Your task to perform on an android device: Clear all items from cart on newegg. Search for usb-c to usb-a on newegg, select the first entry, and add it to the cart. Image 0: 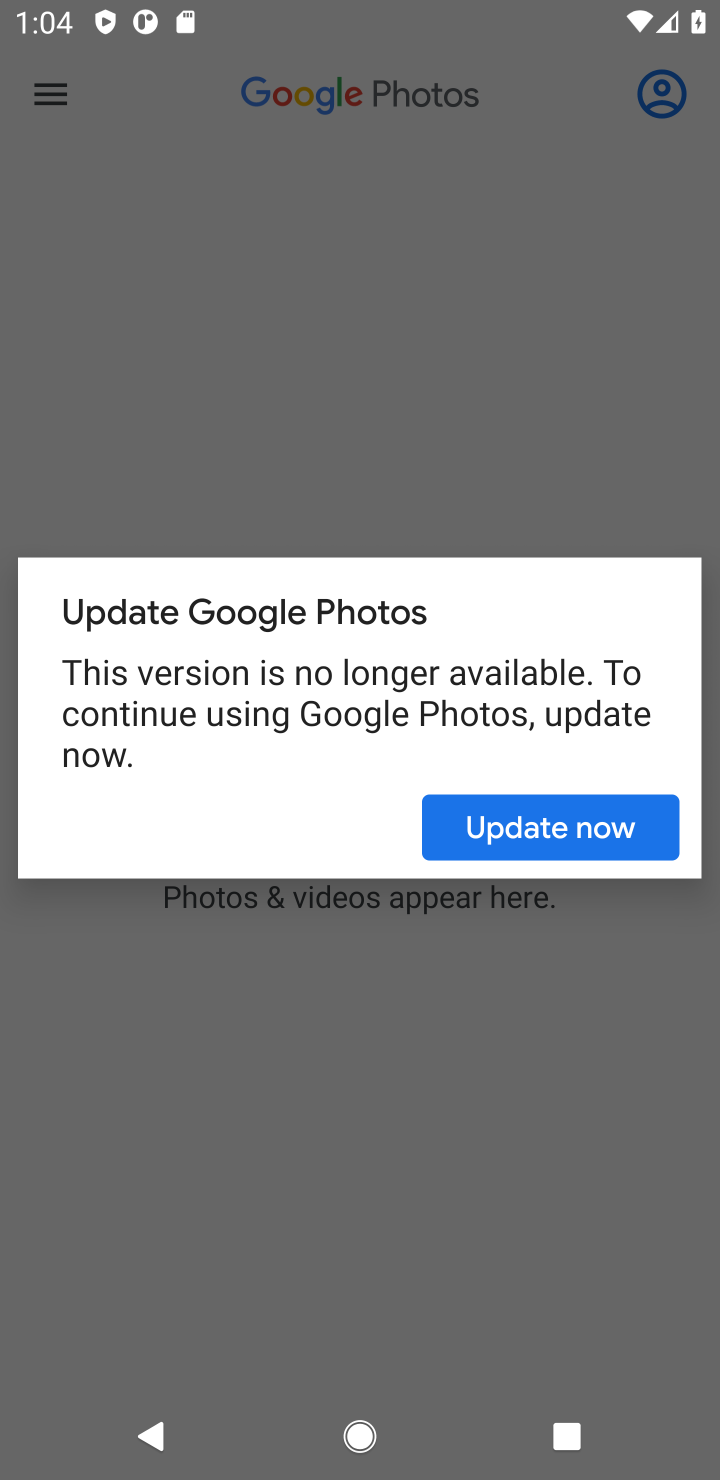
Step 0: press home button
Your task to perform on an android device: Clear all items from cart on newegg. Search for usb-c to usb-a on newegg, select the first entry, and add it to the cart. Image 1: 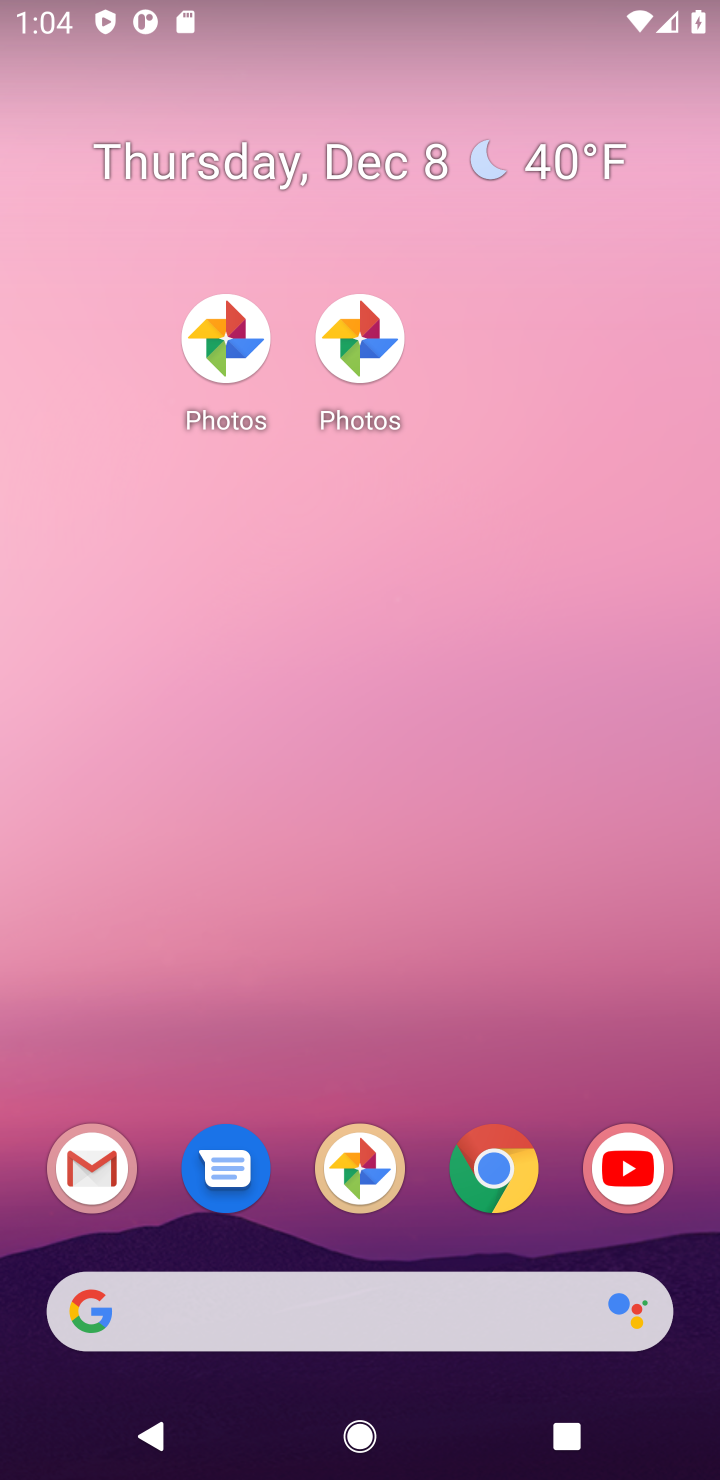
Step 1: drag from (431, 968) to (407, 112)
Your task to perform on an android device: Clear all items from cart on newegg. Search for usb-c to usb-a on newegg, select the first entry, and add it to the cart. Image 2: 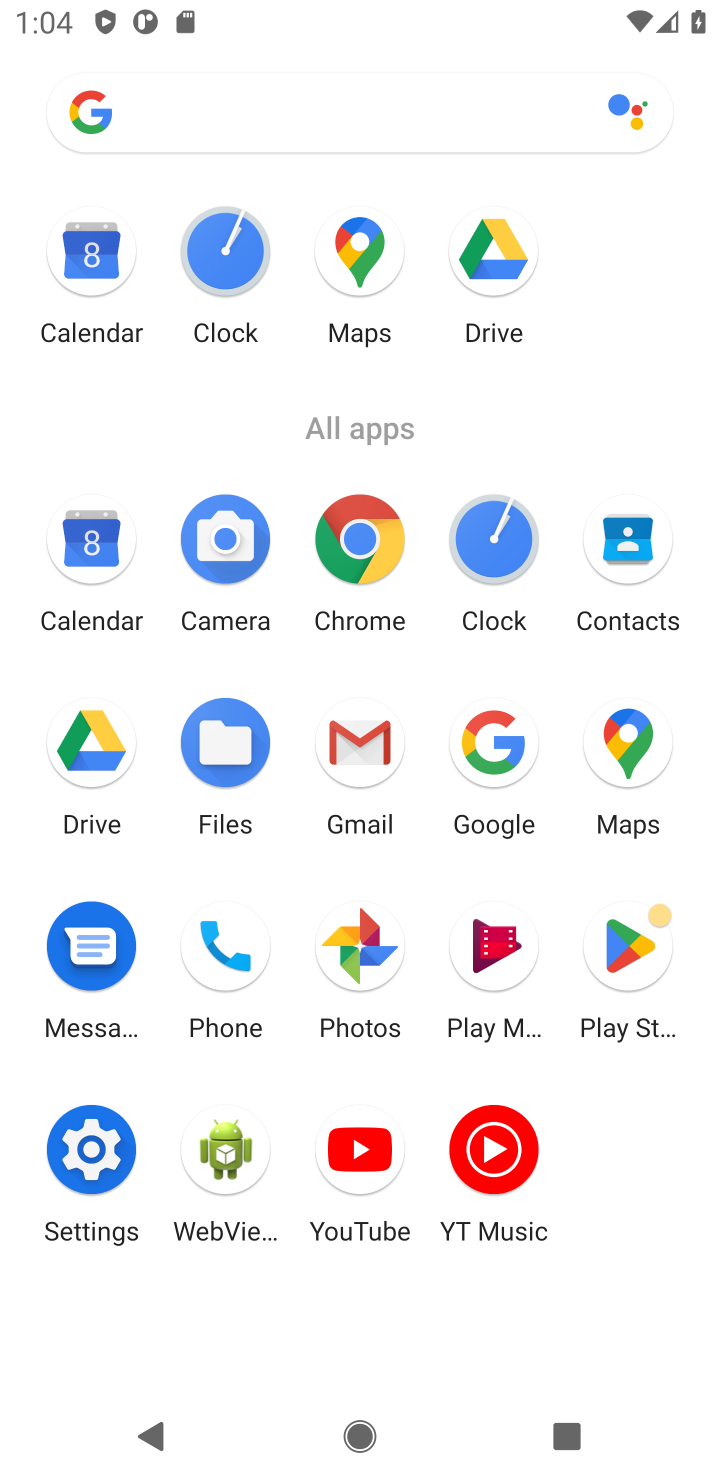
Step 2: click (514, 743)
Your task to perform on an android device: Clear all items from cart on newegg. Search for usb-c to usb-a on newegg, select the first entry, and add it to the cart. Image 3: 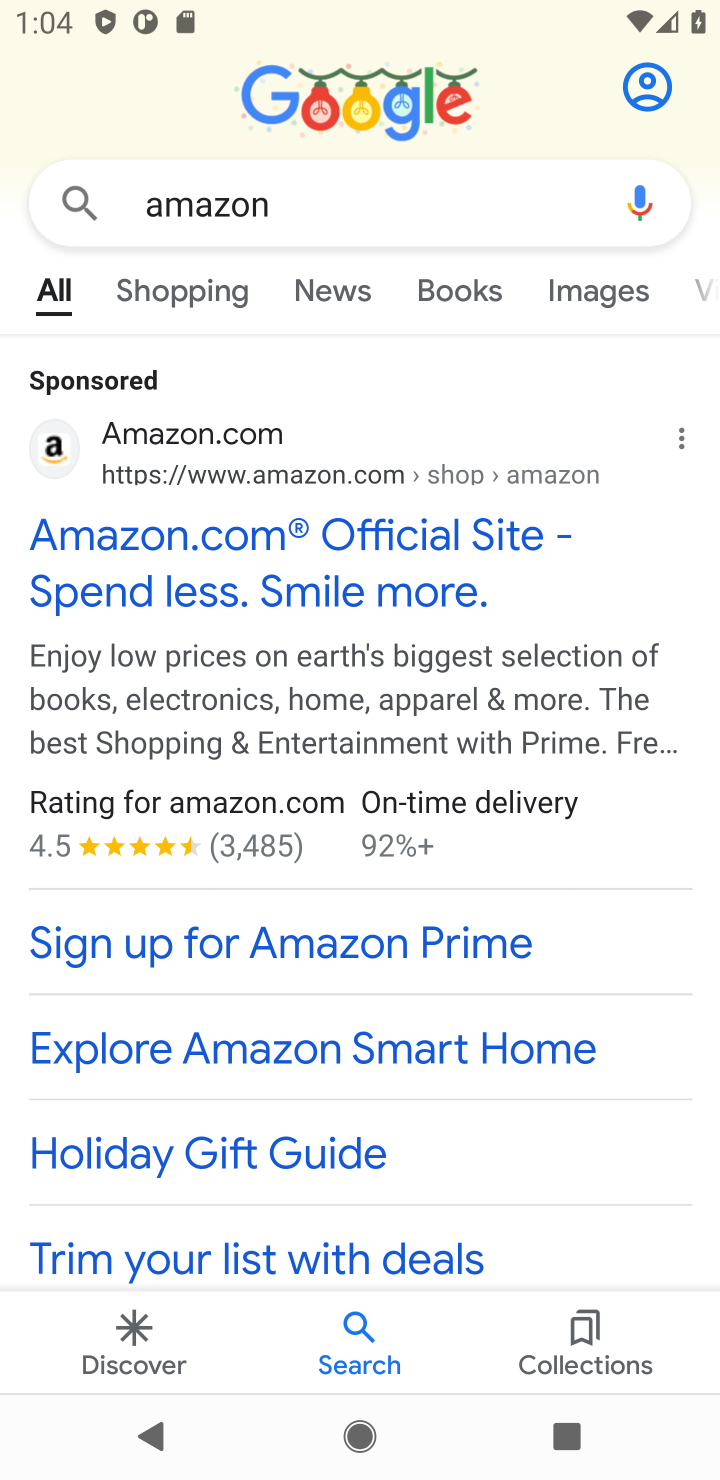
Step 3: click (233, 203)
Your task to perform on an android device: Clear all items from cart on newegg. Search for usb-c to usb-a on newegg, select the first entry, and add it to the cart. Image 4: 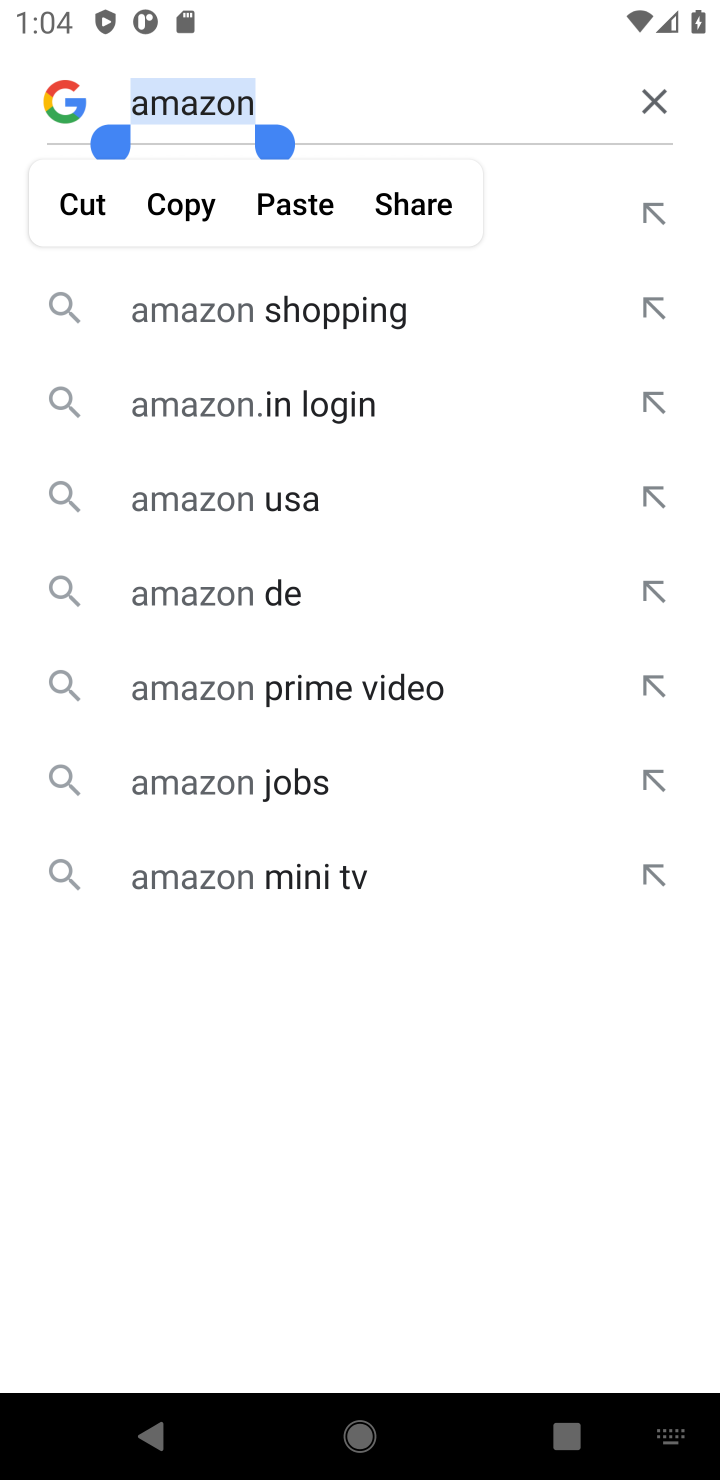
Step 4: click (660, 107)
Your task to perform on an android device: Clear all items from cart on newegg. Search for usb-c to usb-a on newegg, select the first entry, and add it to the cart. Image 5: 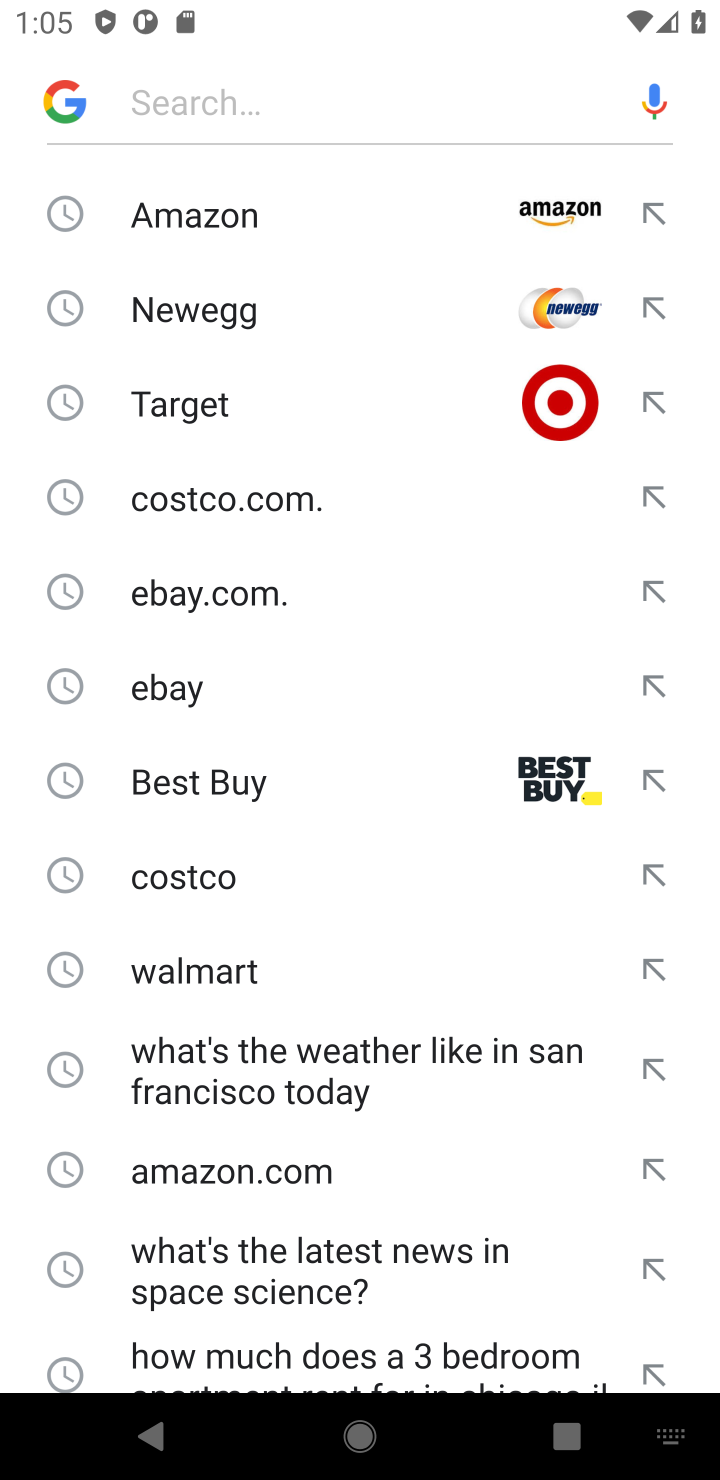
Step 5: click (198, 313)
Your task to perform on an android device: Clear all items from cart on newegg. Search for usb-c to usb-a on newegg, select the first entry, and add it to the cart. Image 6: 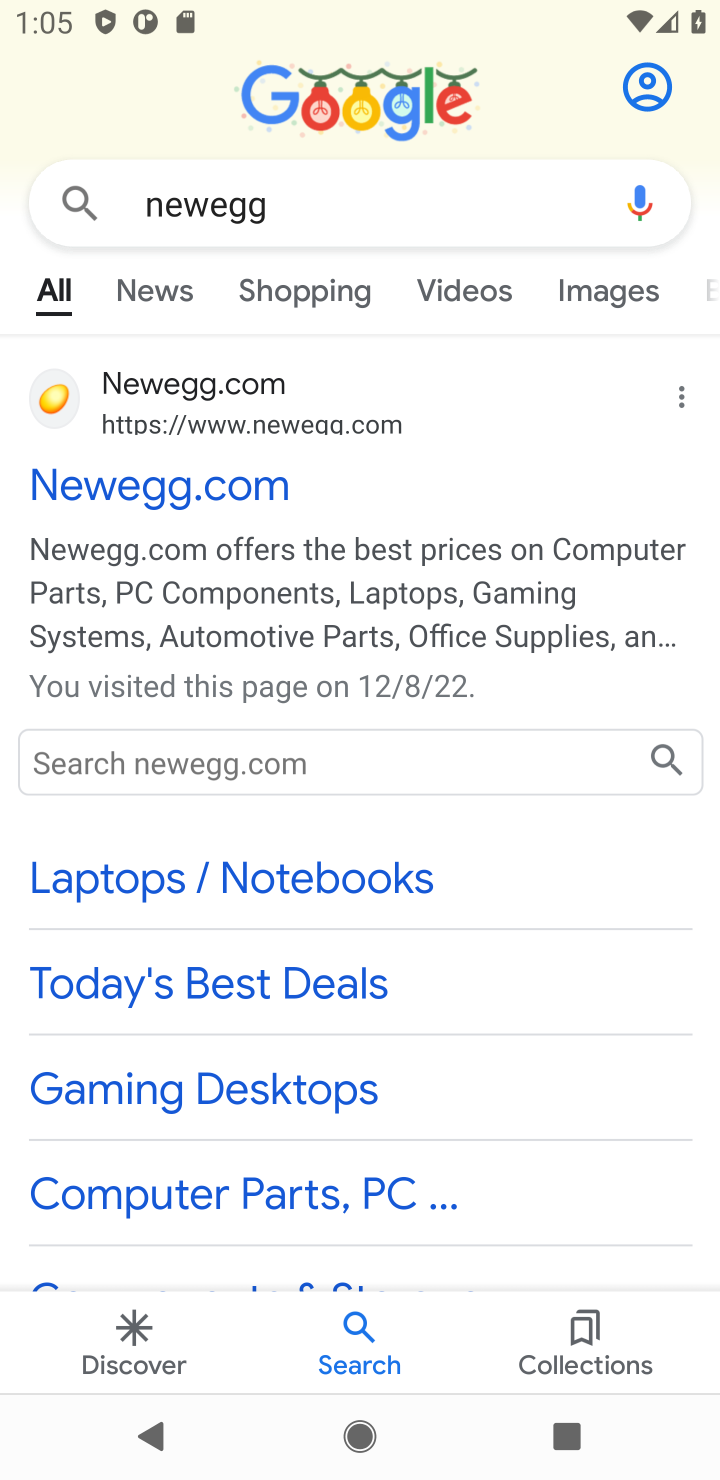
Step 6: click (137, 480)
Your task to perform on an android device: Clear all items from cart on newegg. Search for usb-c to usb-a on newegg, select the first entry, and add it to the cart. Image 7: 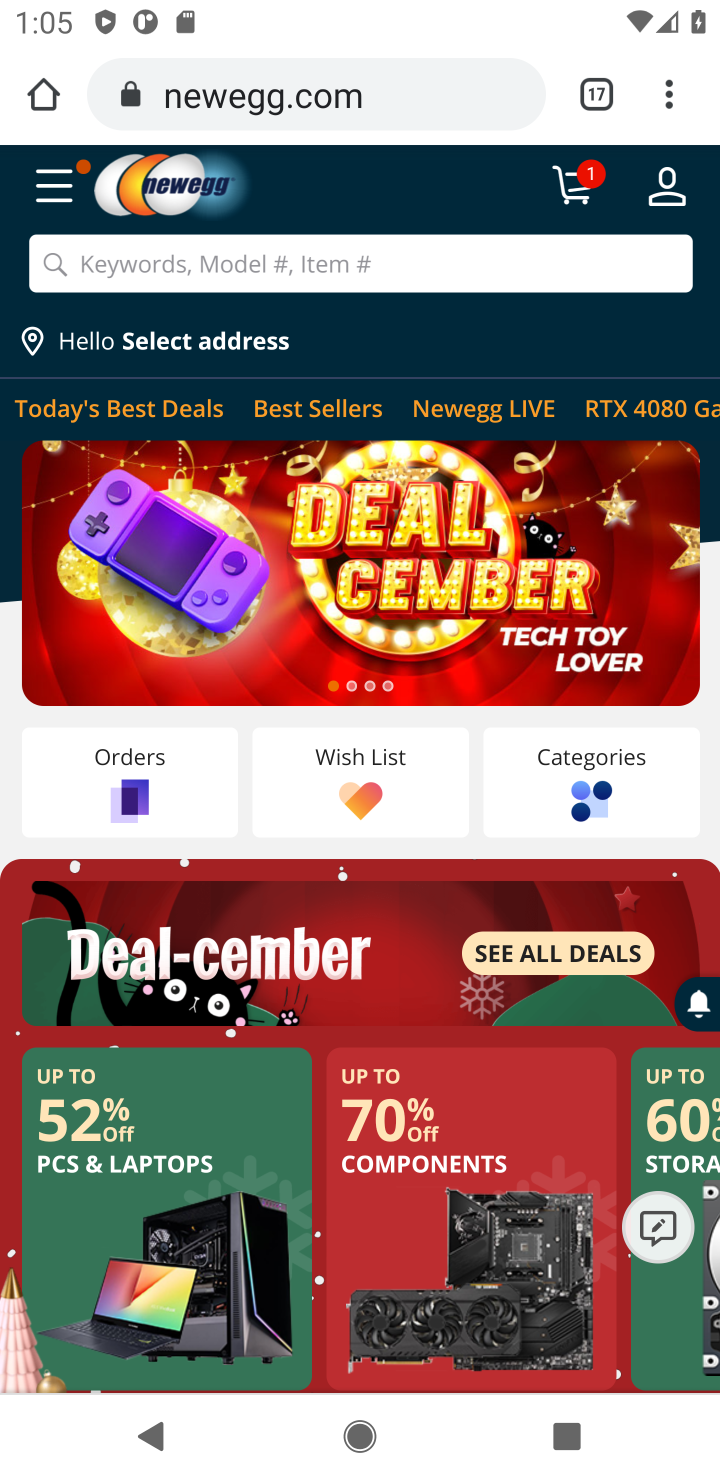
Step 7: click (159, 265)
Your task to perform on an android device: Clear all items from cart on newegg. Search for usb-c to usb-a on newegg, select the first entry, and add it to the cart. Image 8: 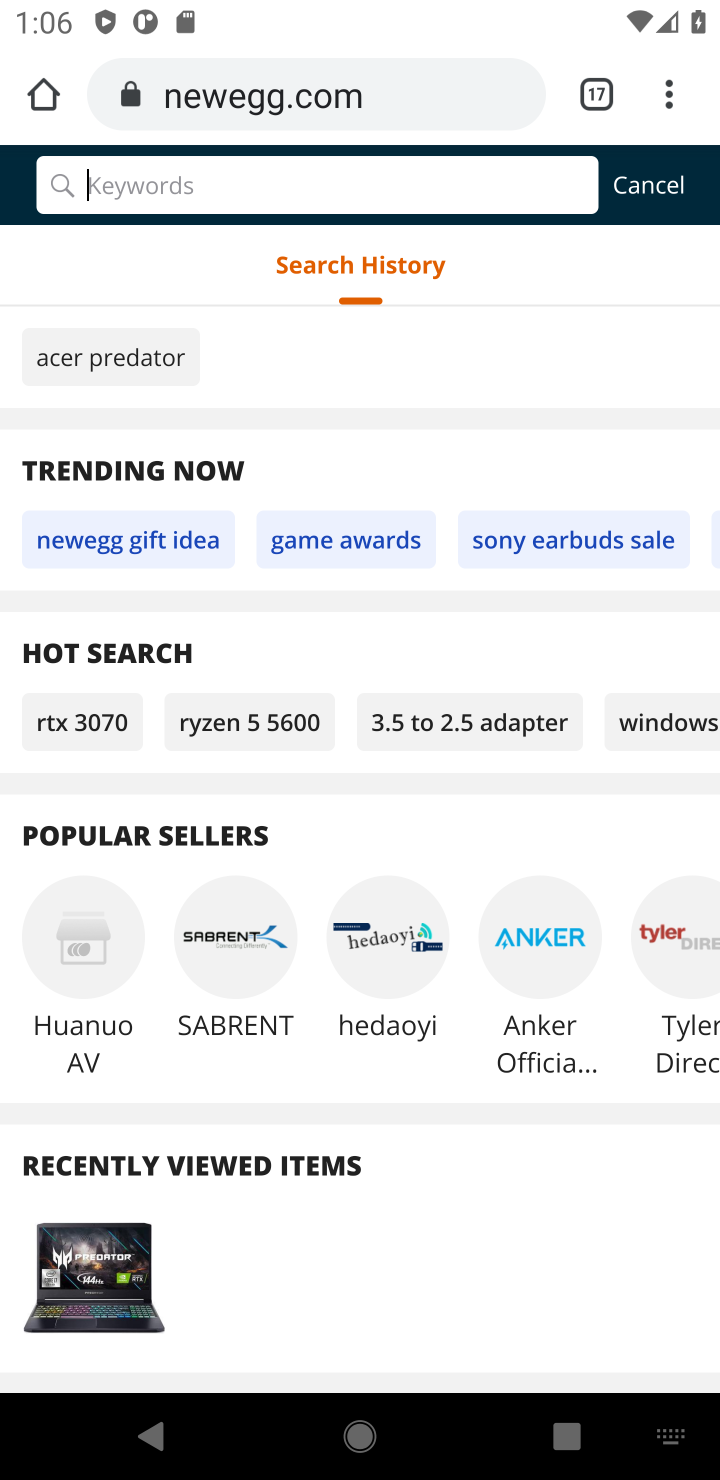
Step 8: type "usb-c to usb-a"
Your task to perform on an android device: Clear all items from cart on newegg. Search for usb-c to usb-a on newegg, select the first entry, and add it to the cart. Image 9: 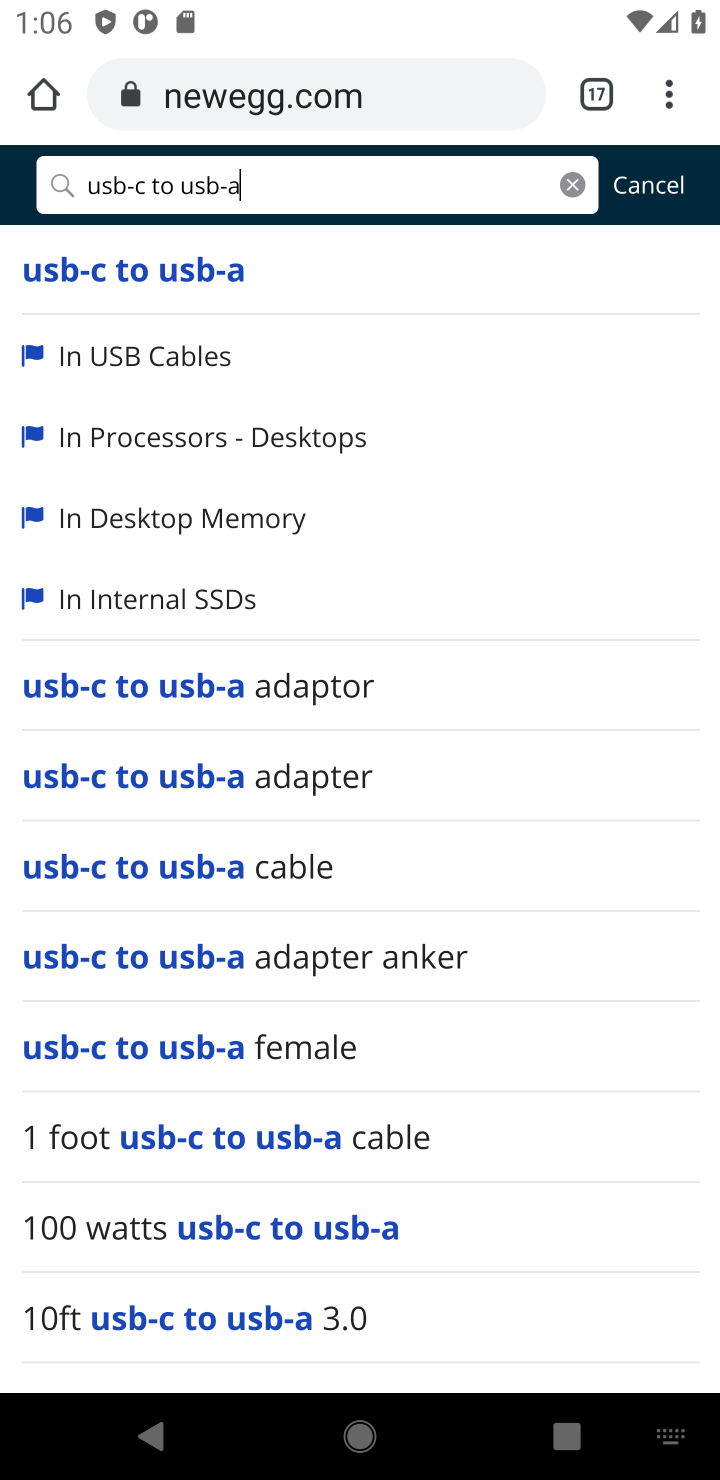
Step 9: click (211, 276)
Your task to perform on an android device: Clear all items from cart on newegg. Search for usb-c to usb-a on newegg, select the first entry, and add it to the cart. Image 10: 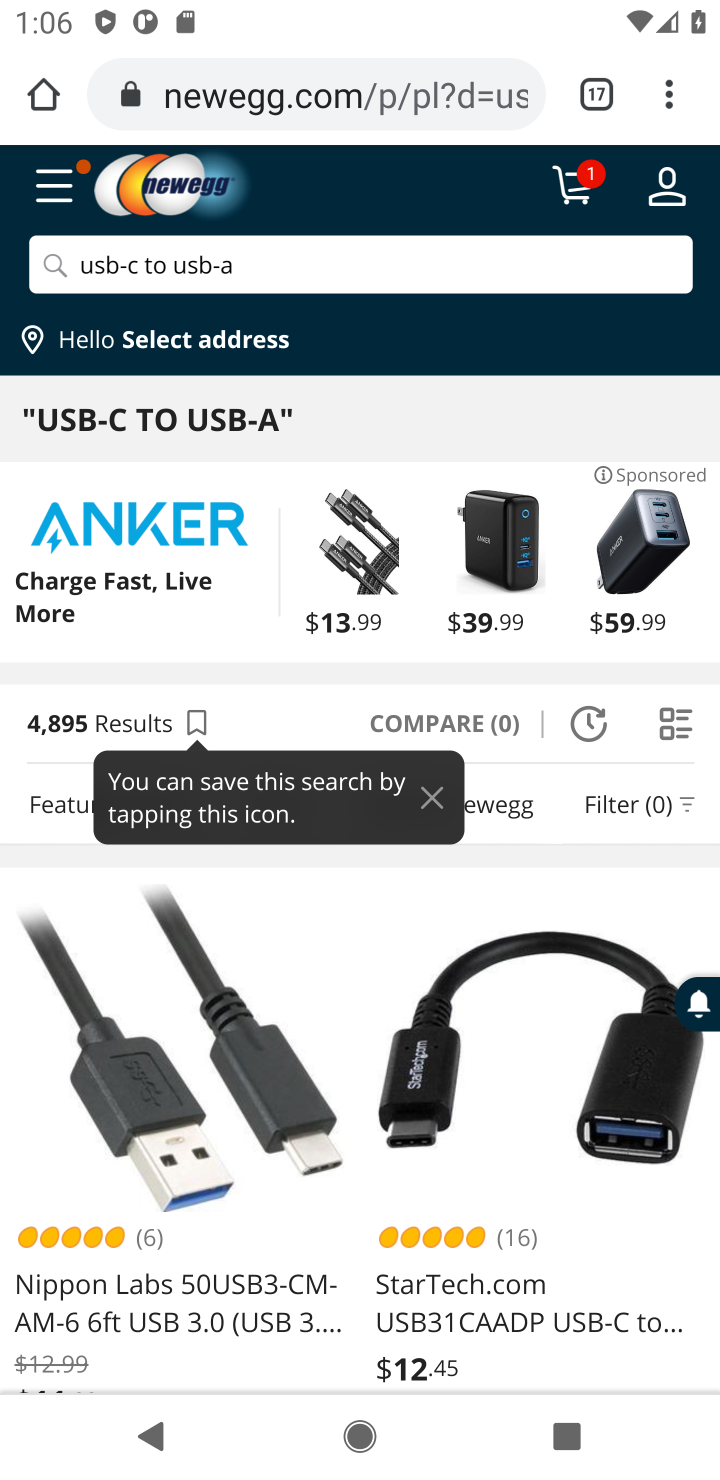
Step 10: drag from (348, 1361) to (350, 848)
Your task to perform on an android device: Clear all items from cart on newegg. Search for usb-c to usb-a on newegg, select the first entry, and add it to the cart. Image 11: 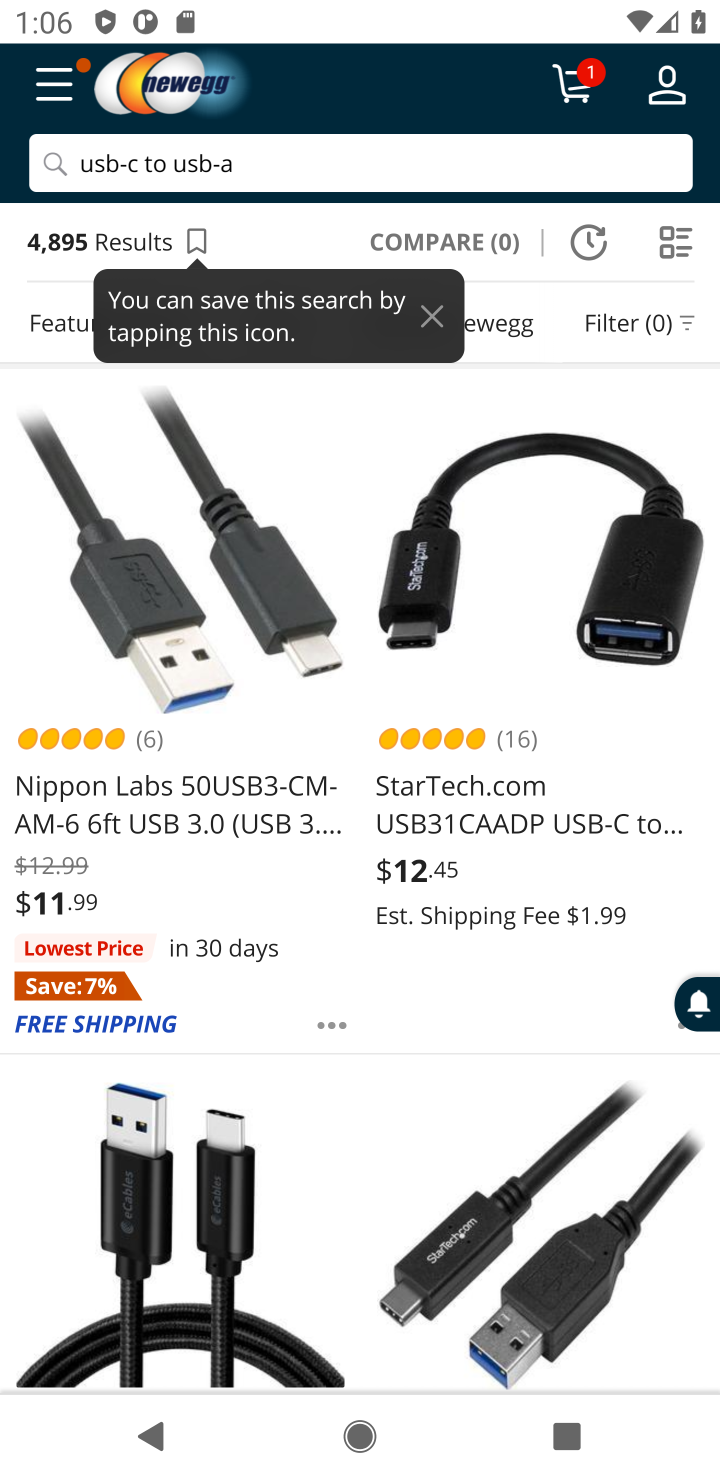
Step 11: drag from (355, 977) to (363, 1149)
Your task to perform on an android device: Clear all items from cart on newegg. Search for usb-c to usb-a on newegg, select the first entry, and add it to the cart. Image 12: 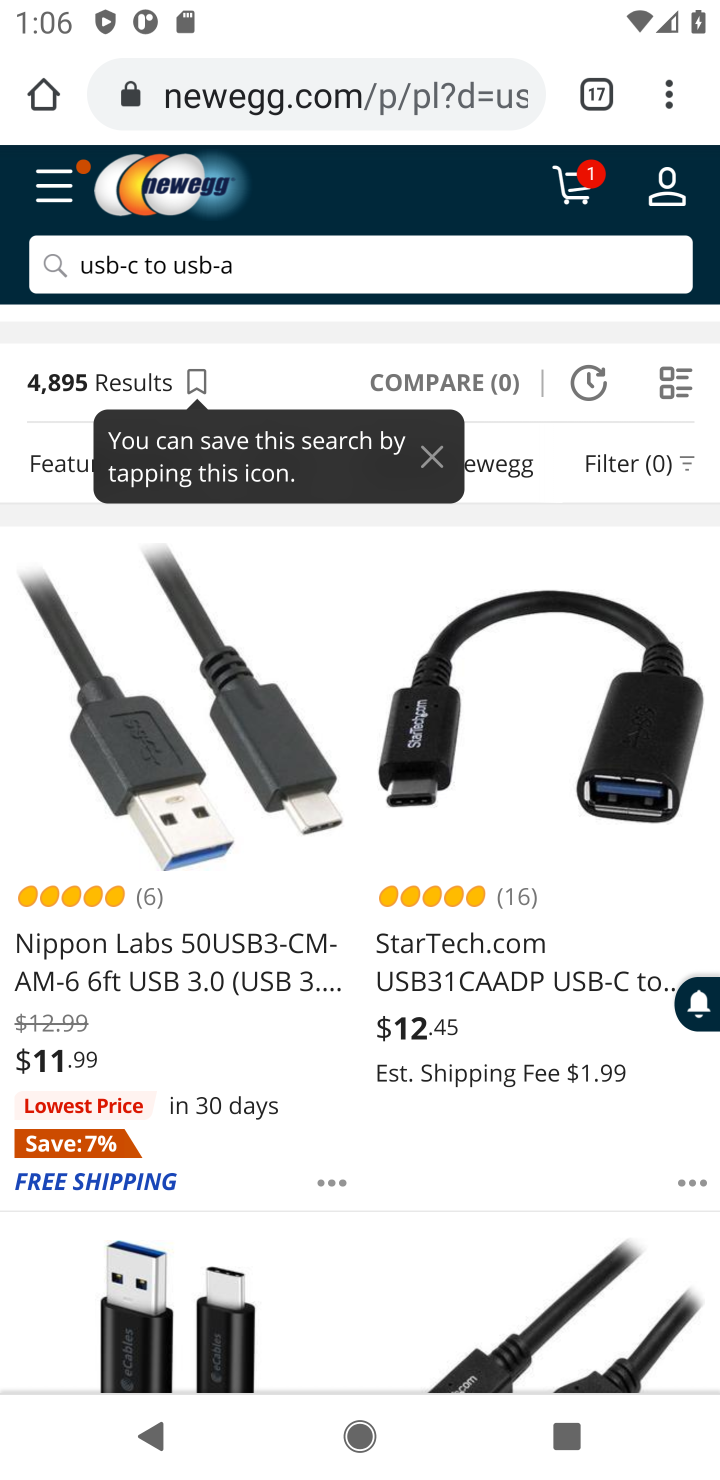
Step 12: click (116, 943)
Your task to perform on an android device: Clear all items from cart on newegg. Search for usb-c to usb-a on newegg, select the first entry, and add it to the cart. Image 13: 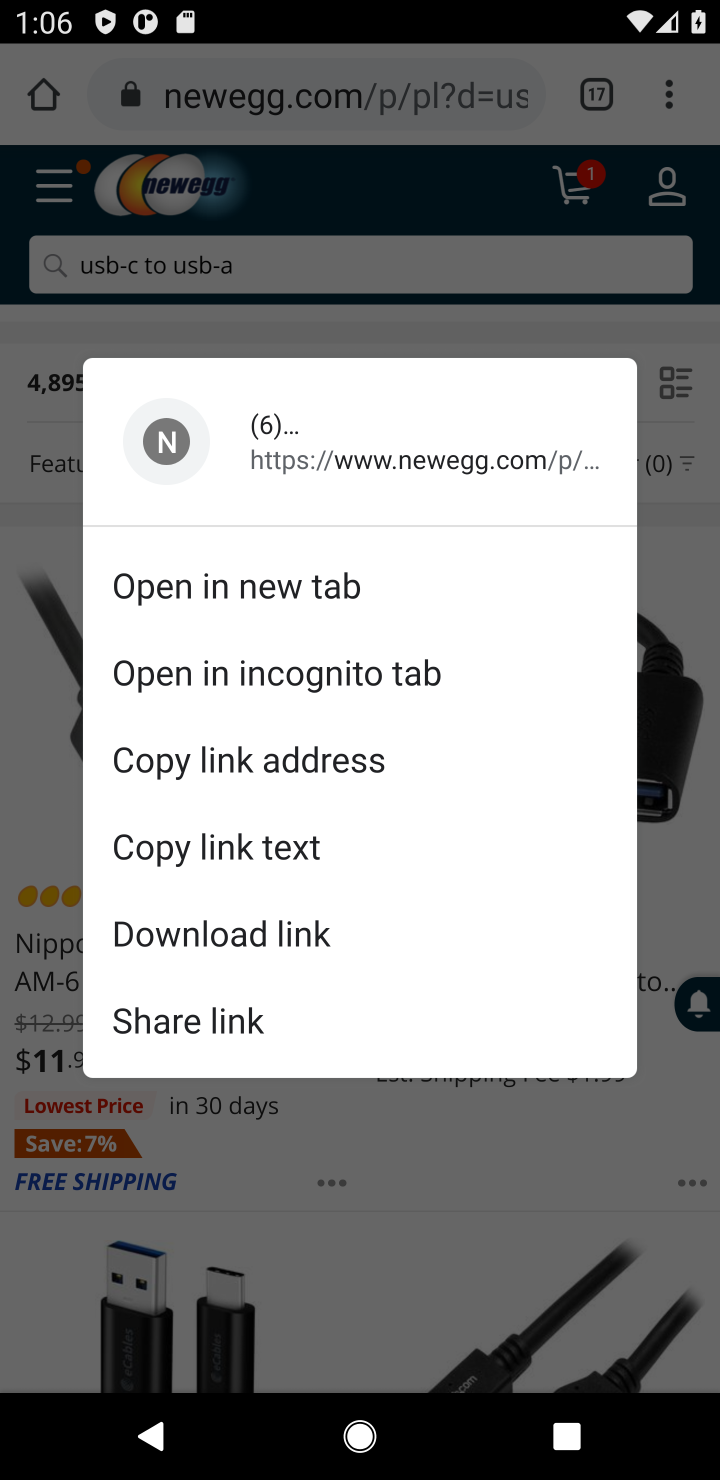
Step 13: click (18, 784)
Your task to perform on an android device: Clear all items from cart on newegg. Search for usb-c to usb-a on newegg, select the first entry, and add it to the cart. Image 14: 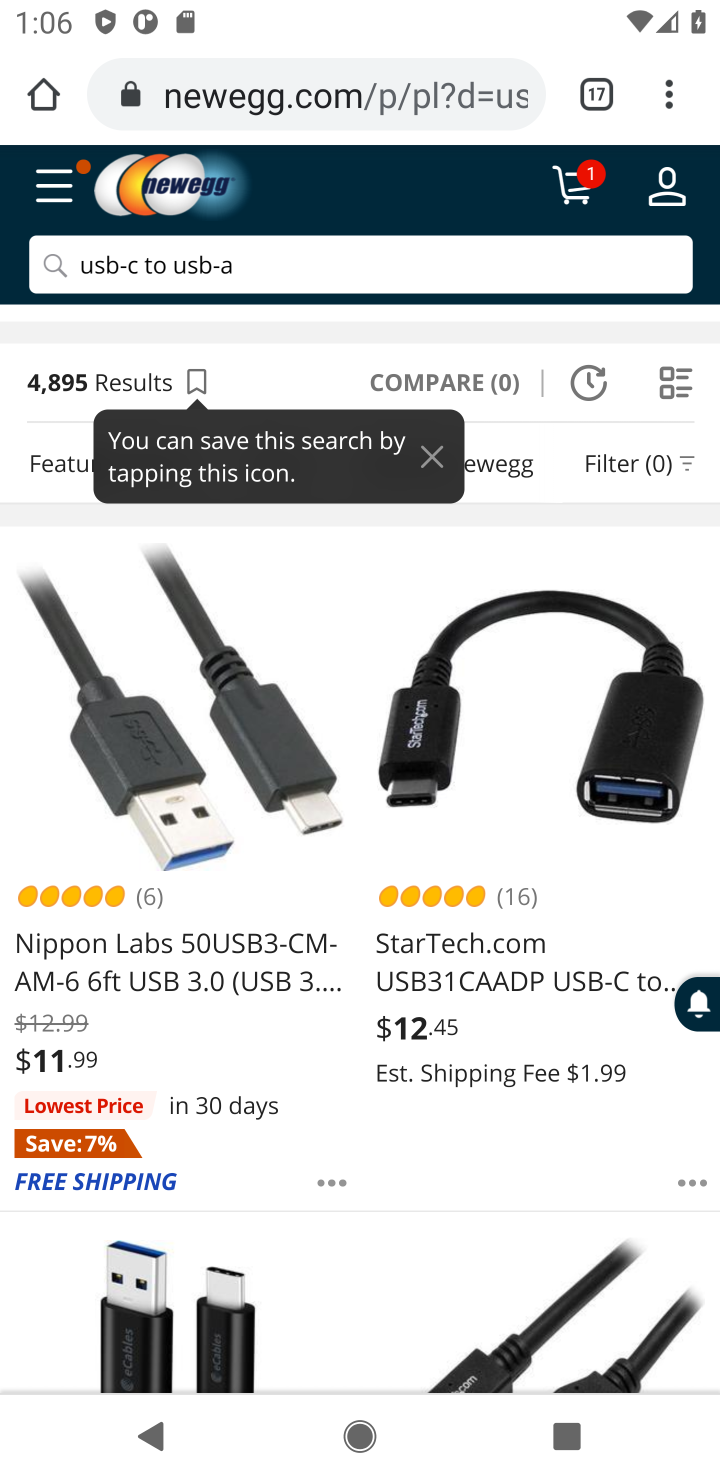
Step 14: click (177, 970)
Your task to perform on an android device: Clear all items from cart on newegg. Search for usb-c to usb-a on newegg, select the first entry, and add it to the cart. Image 15: 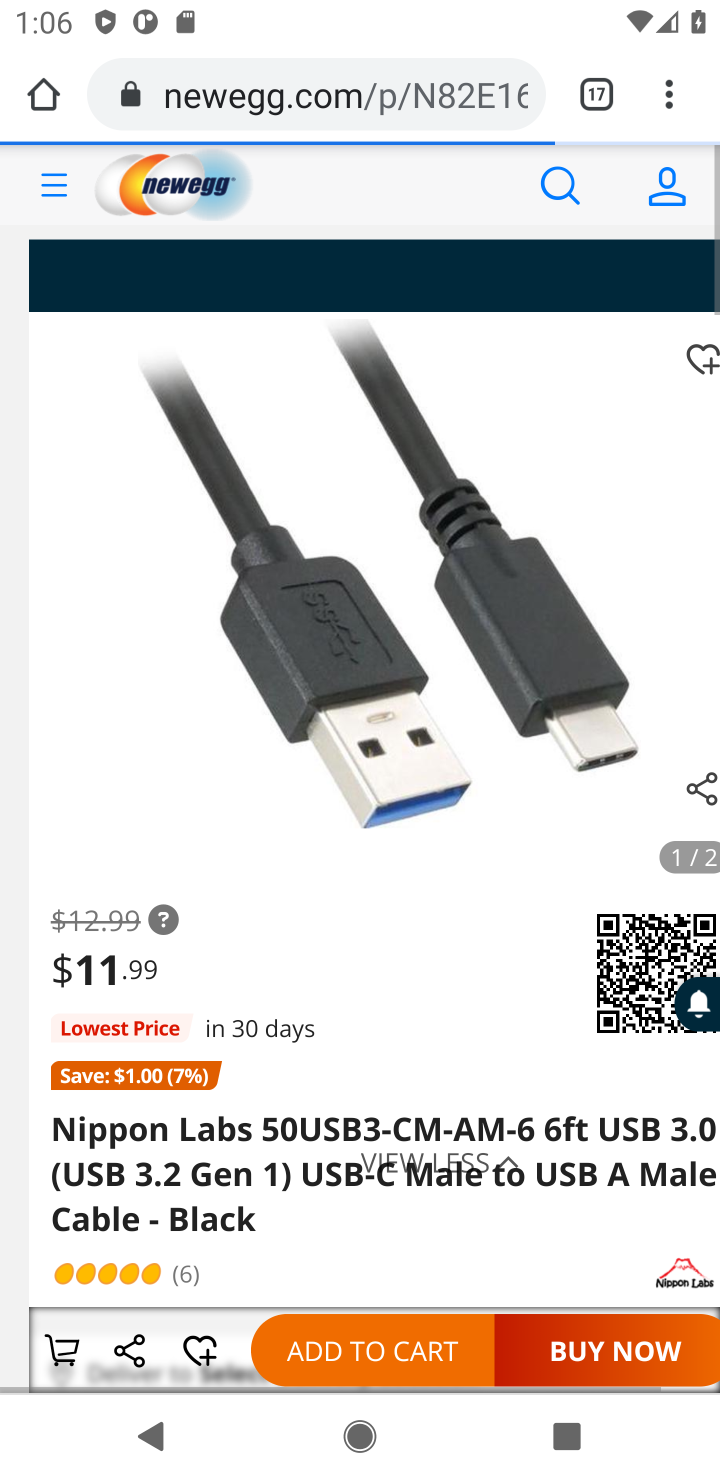
Step 15: click (46, 978)
Your task to perform on an android device: Clear all items from cart on newegg. Search for usb-c to usb-a on newegg, select the first entry, and add it to the cart. Image 16: 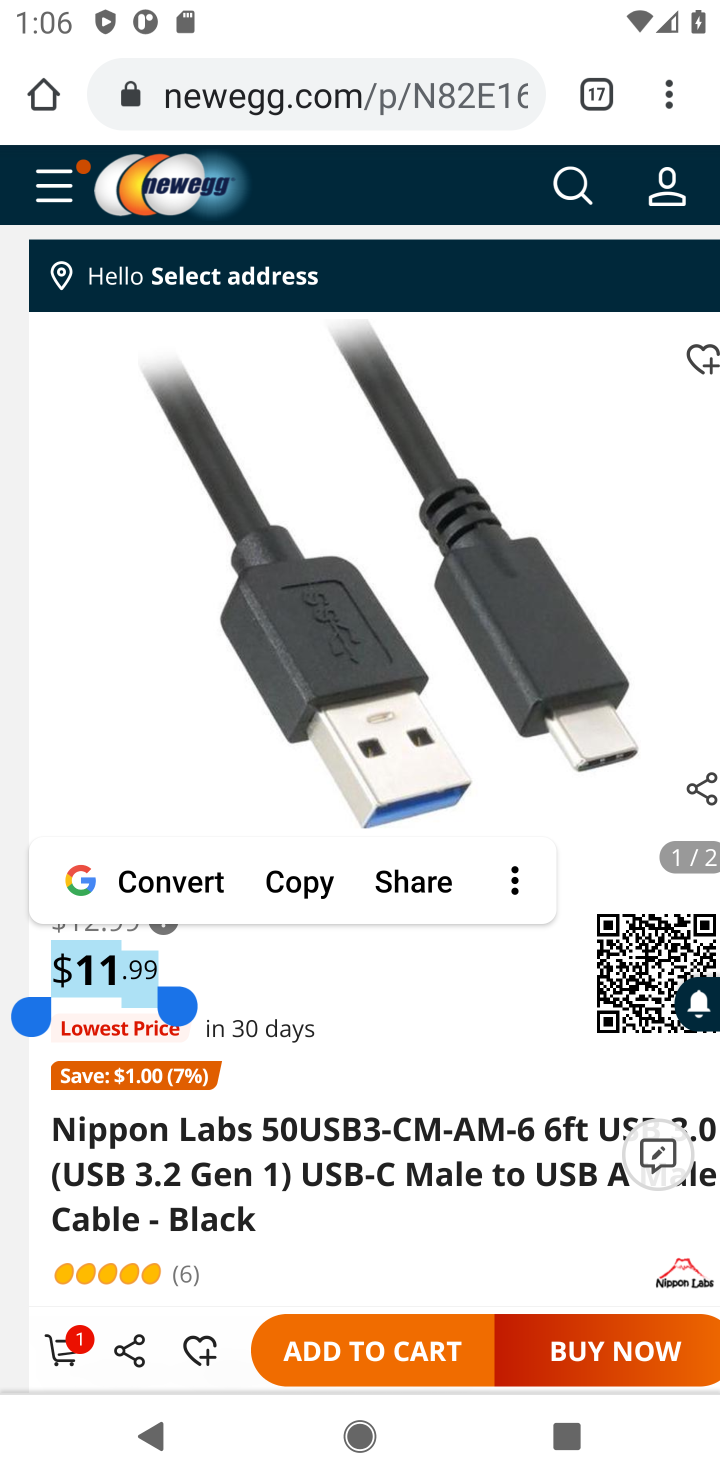
Step 16: click (46, 1354)
Your task to perform on an android device: Clear all items from cart on newegg. Search for usb-c to usb-a on newegg, select the first entry, and add it to the cart. Image 17: 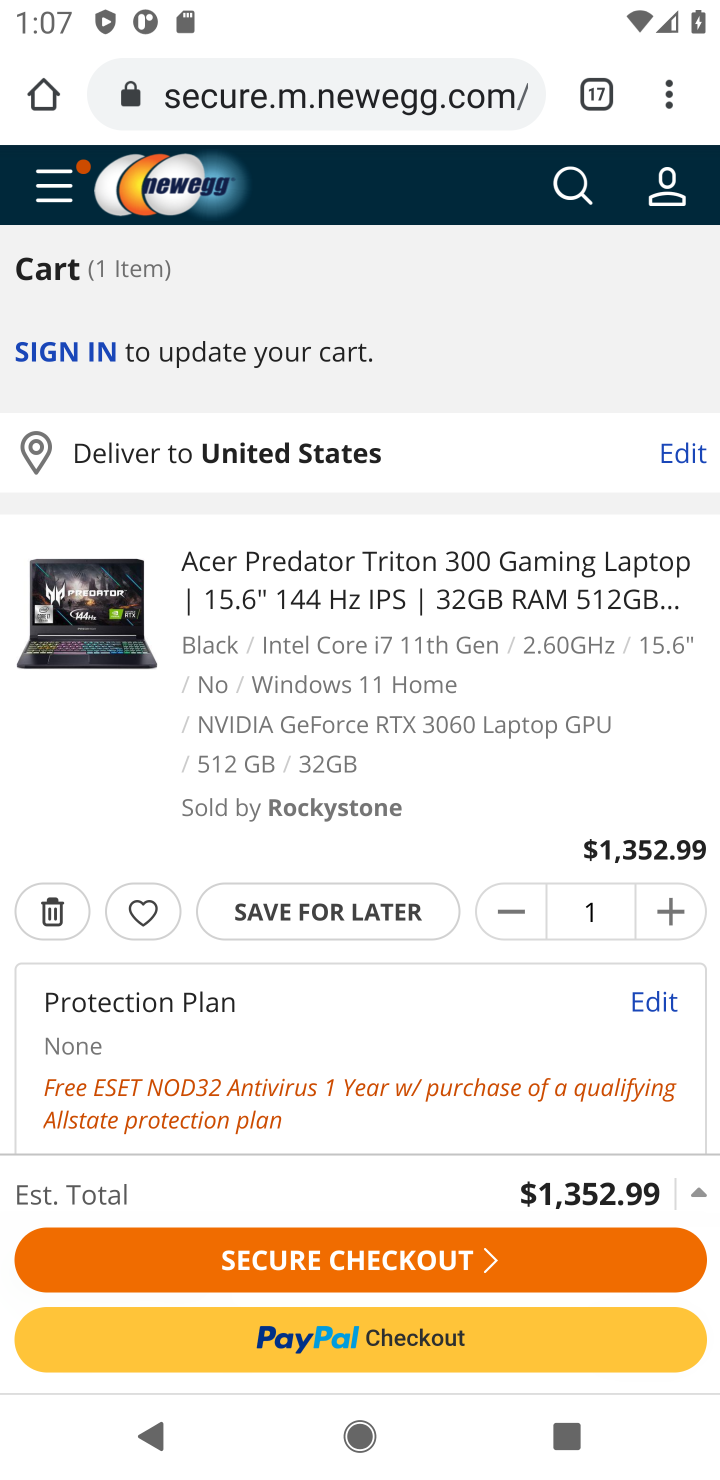
Step 17: drag from (401, 1137) to (360, 564)
Your task to perform on an android device: Clear all items from cart on newegg. Search for usb-c to usb-a on newegg, select the first entry, and add it to the cart. Image 18: 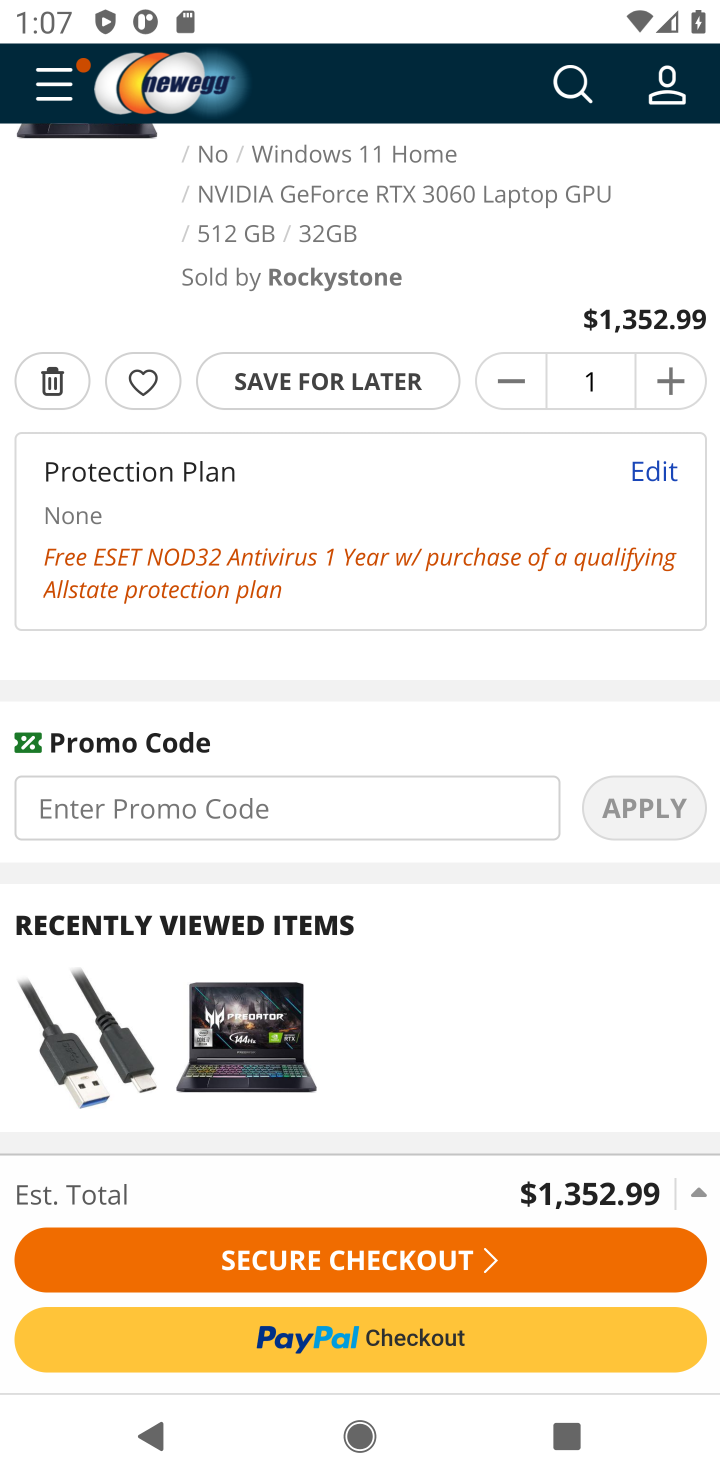
Step 18: click (39, 389)
Your task to perform on an android device: Clear all items from cart on newegg. Search for usb-c to usb-a on newegg, select the first entry, and add it to the cart. Image 19: 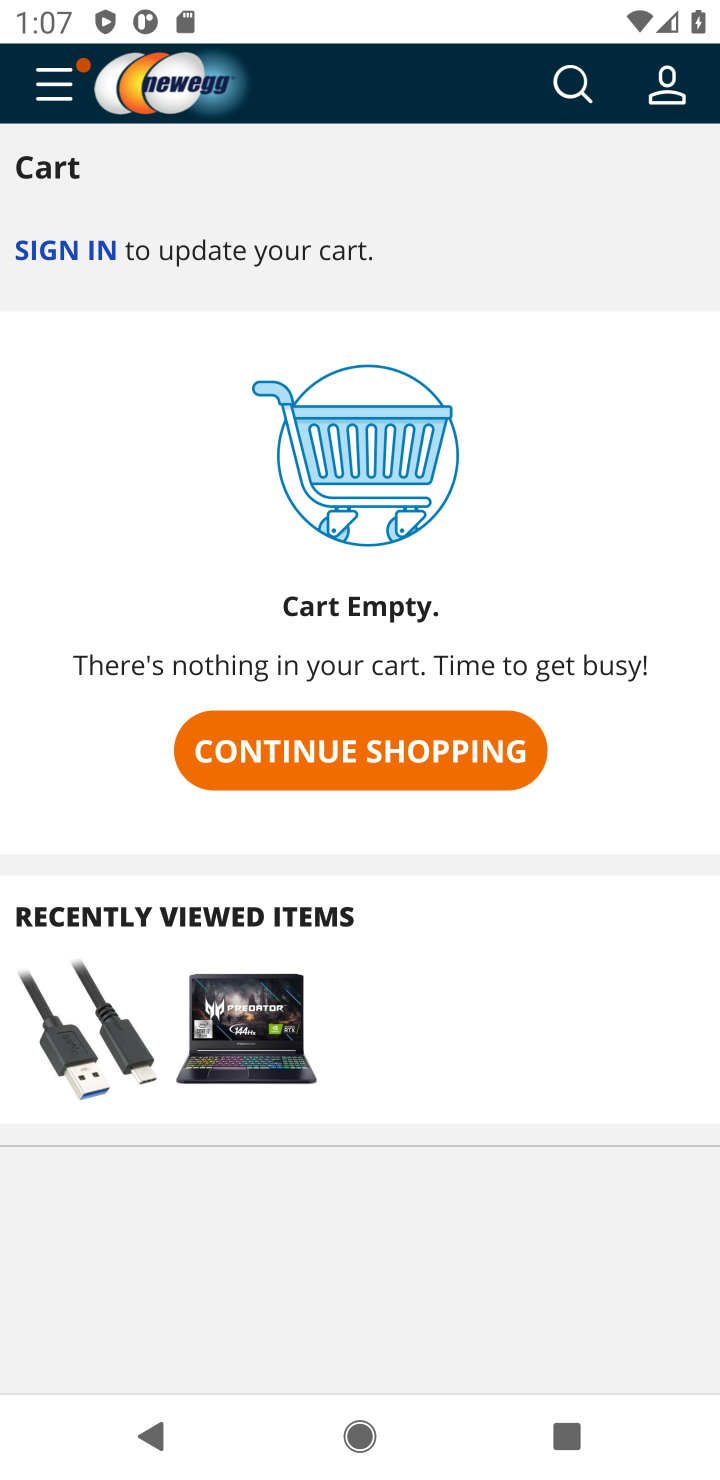
Step 19: click (569, 87)
Your task to perform on an android device: Clear all items from cart on newegg. Search for usb-c to usb-a on newegg, select the first entry, and add it to the cart. Image 20: 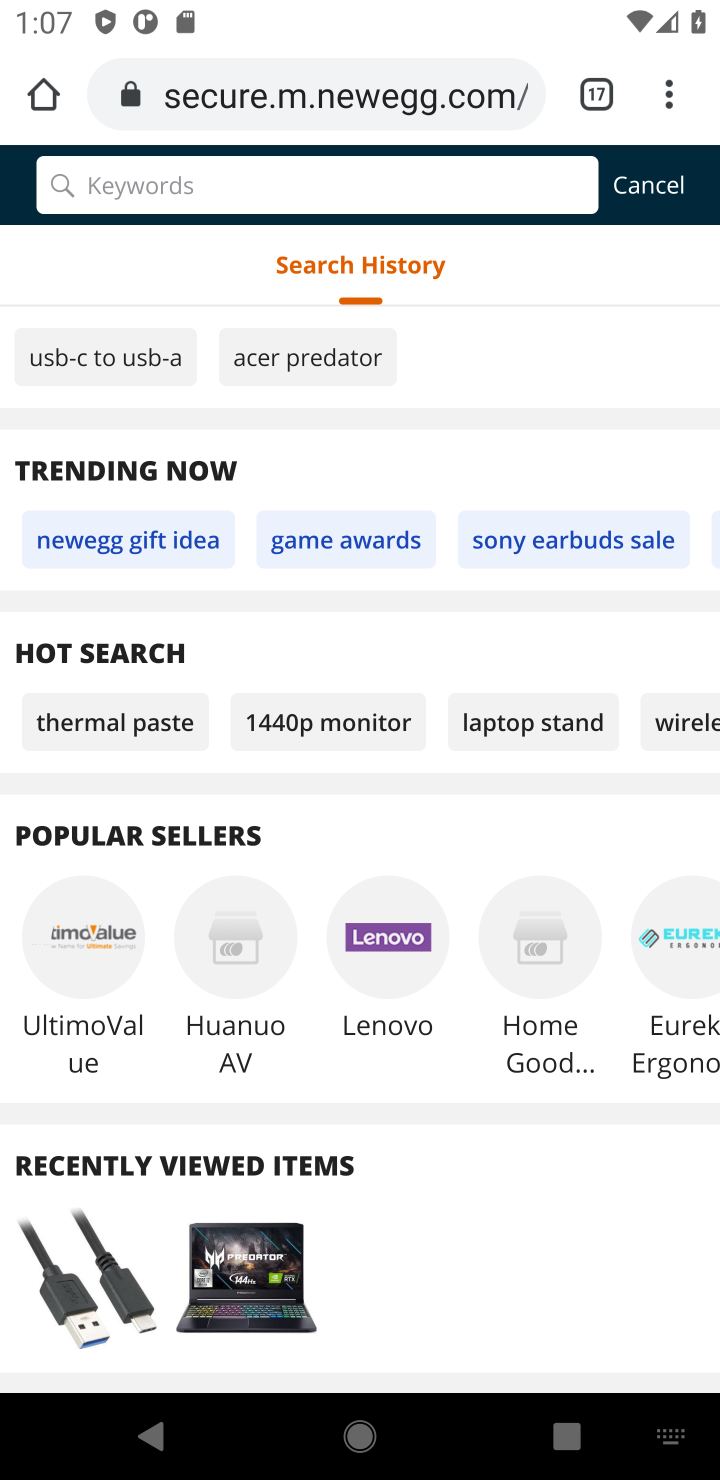
Step 20: type "usb-c to usb-a"
Your task to perform on an android device: Clear all items from cart on newegg. Search for usb-c to usb-a on newegg, select the first entry, and add it to the cart. Image 21: 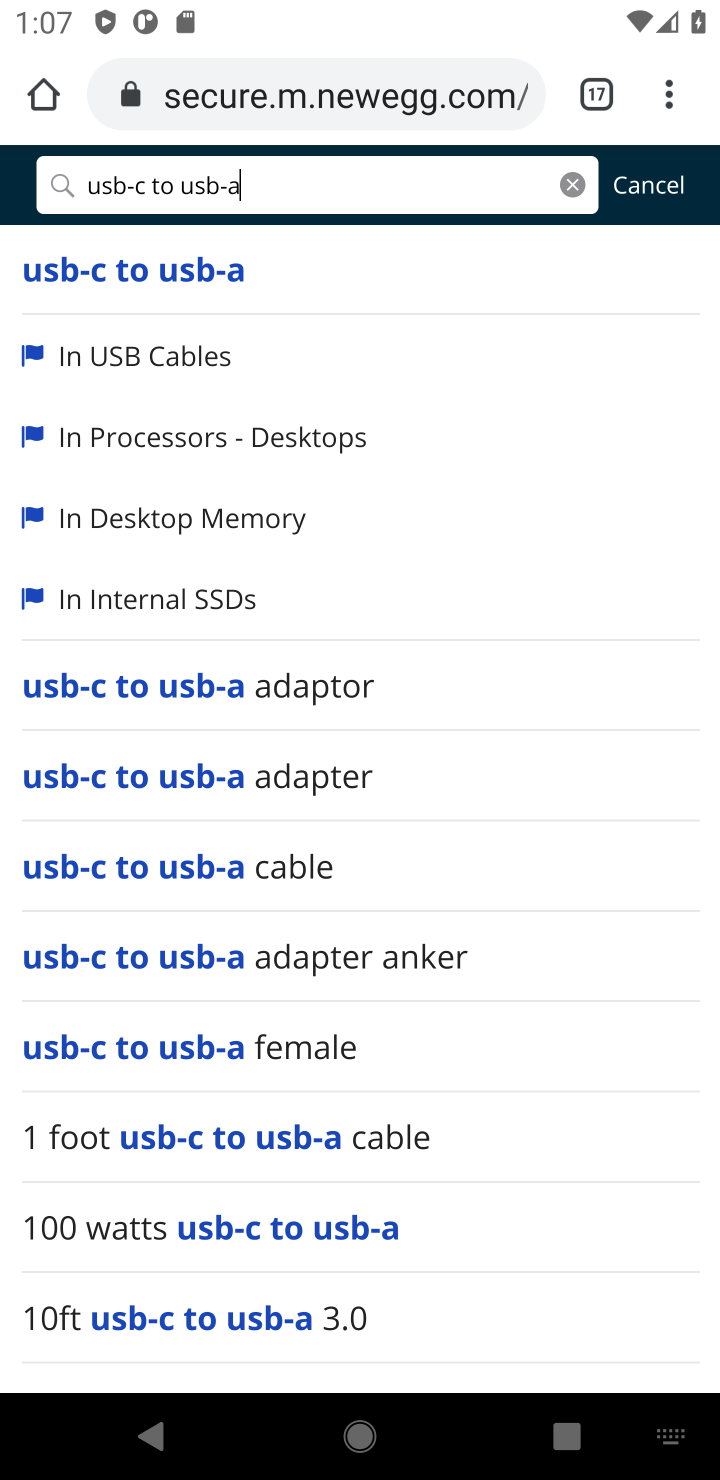
Step 21: click (103, 289)
Your task to perform on an android device: Clear all items from cart on newegg. Search for usb-c to usb-a on newegg, select the first entry, and add it to the cart. Image 22: 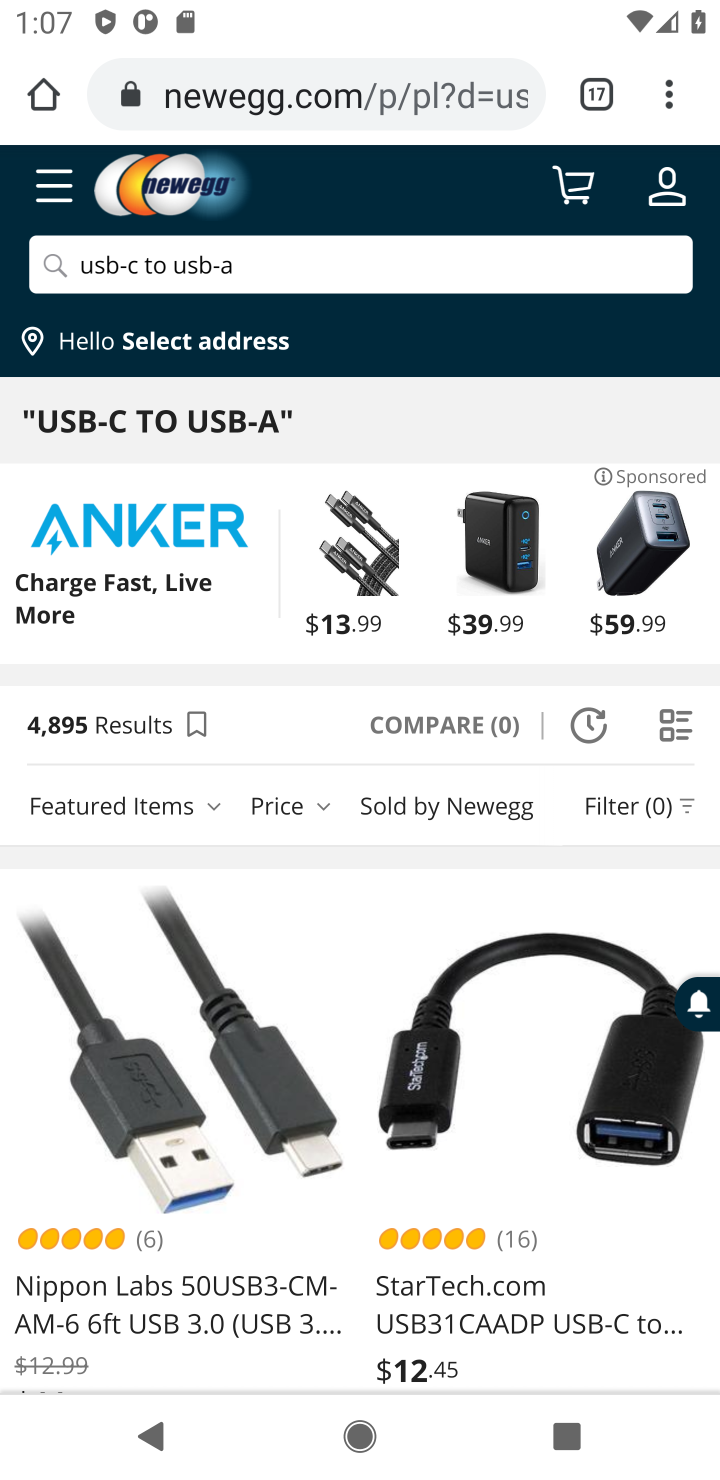
Step 22: drag from (381, 1092) to (381, 727)
Your task to perform on an android device: Clear all items from cart on newegg. Search for usb-c to usb-a on newegg, select the first entry, and add it to the cart. Image 23: 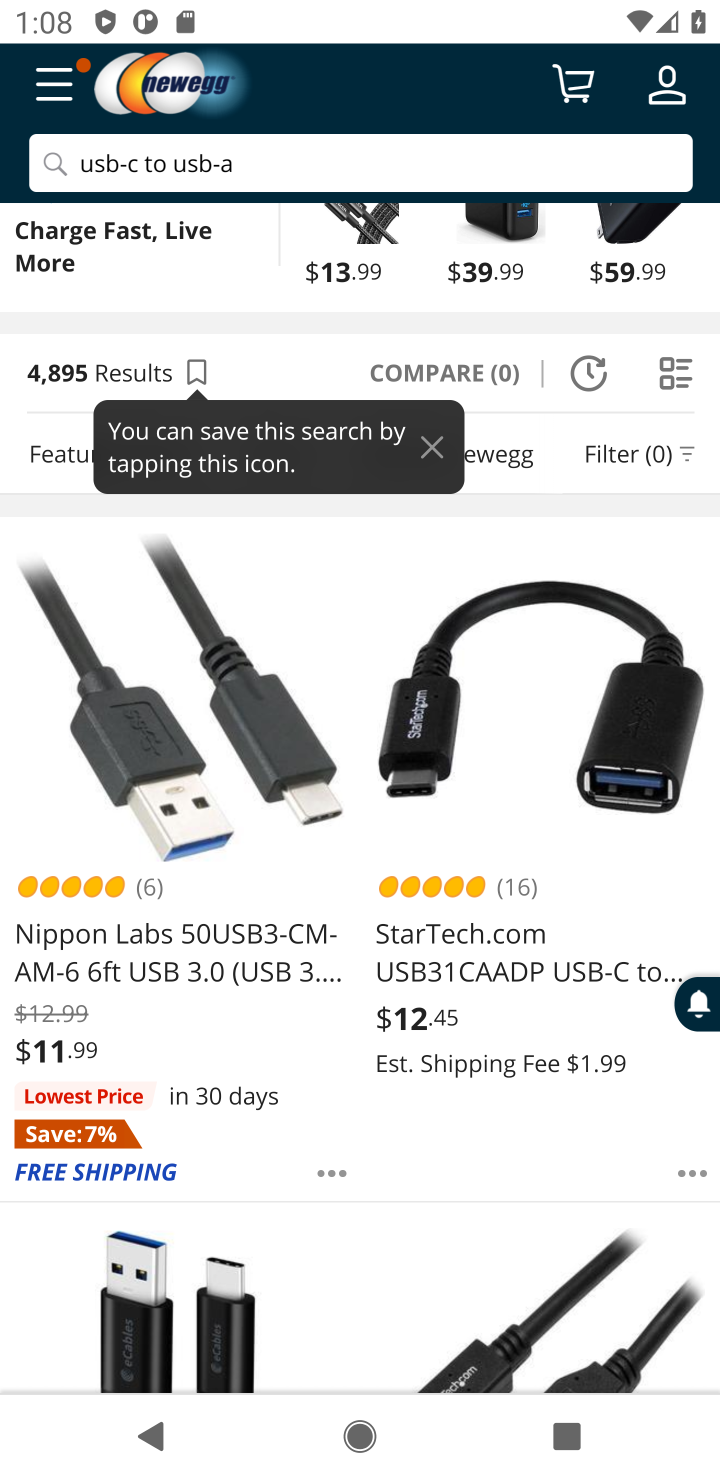
Step 23: click (199, 990)
Your task to perform on an android device: Clear all items from cart on newegg. Search for usb-c to usb-a on newegg, select the first entry, and add it to the cart. Image 24: 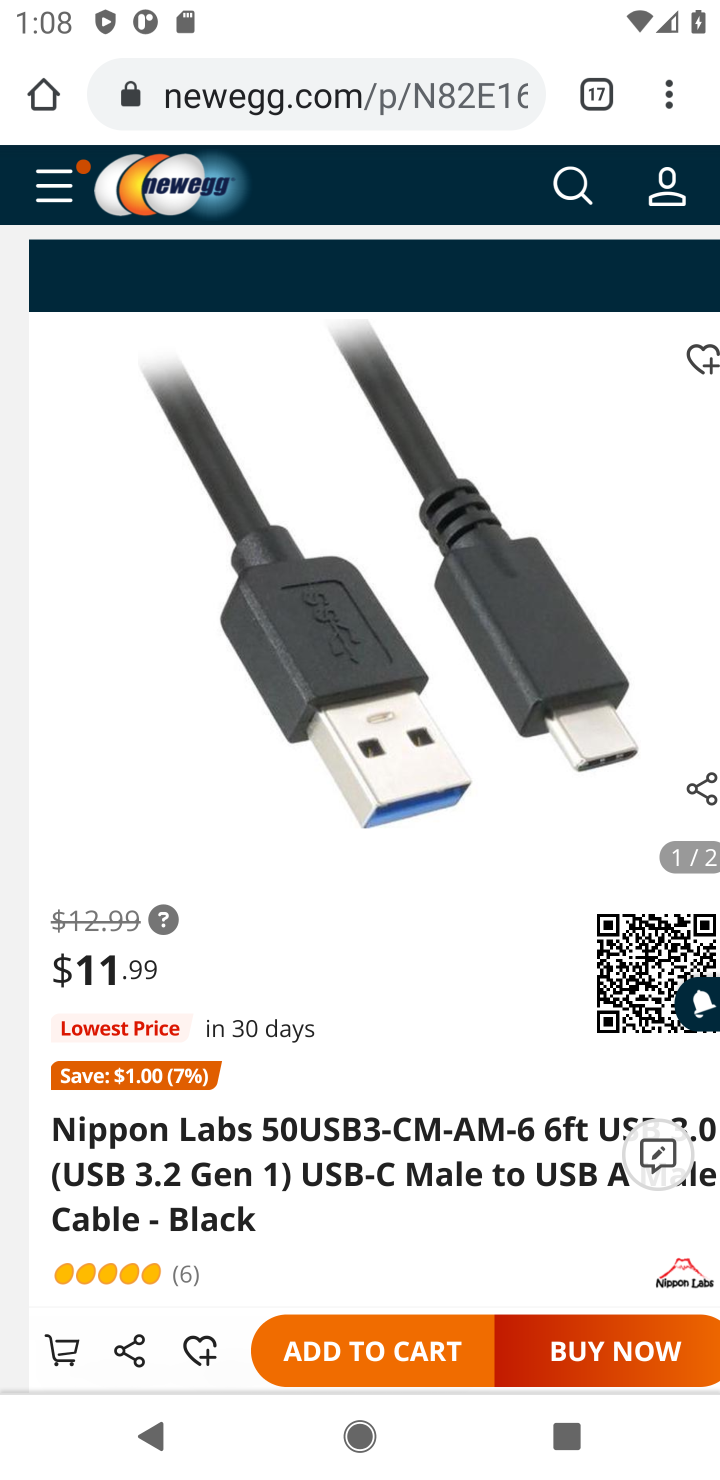
Step 24: click (383, 1356)
Your task to perform on an android device: Clear all items from cart on newegg. Search for usb-c to usb-a on newegg, select the first entry, and add it to the cart. Image 25: 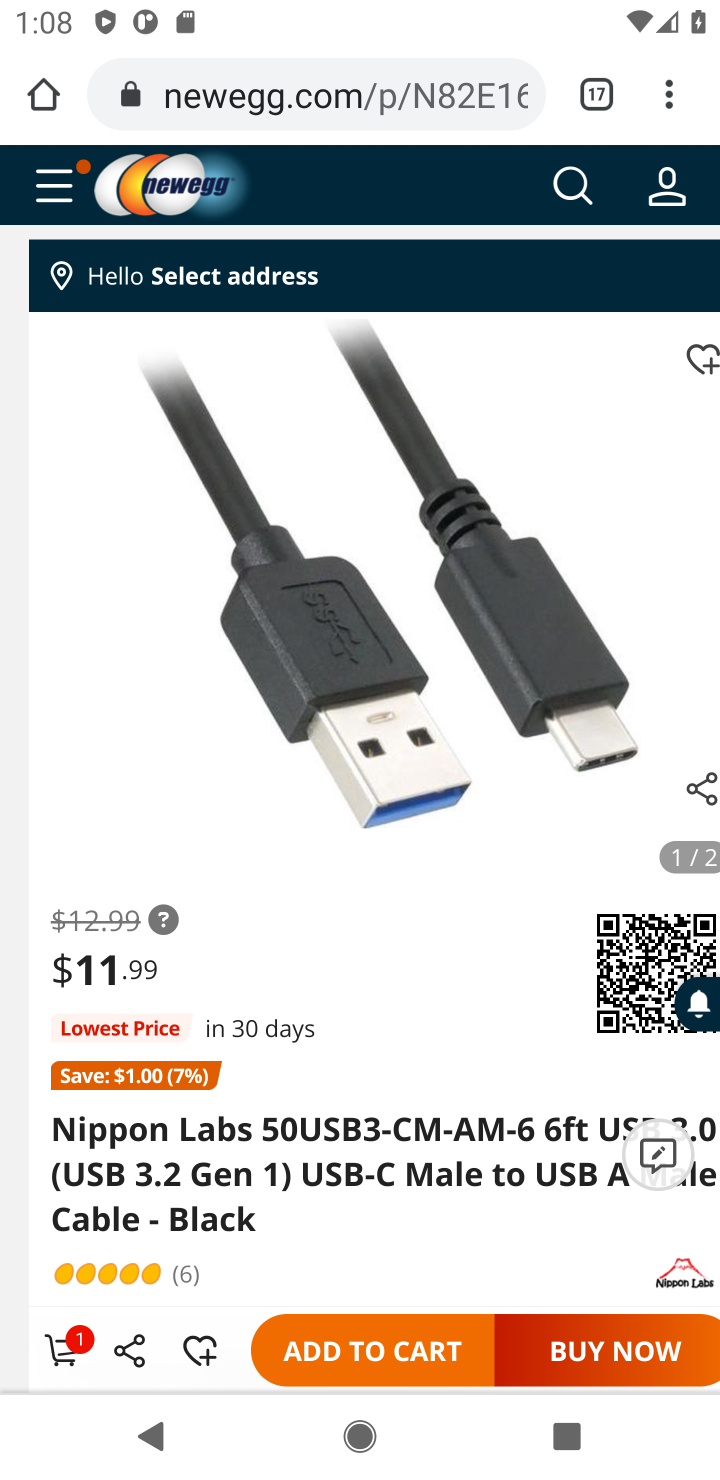
Step 25: click (300, 1337)
Your task to perform on an android device: Clear all items from cart on newegg. Search for usb-c to usb-a on newegg, select the first entry, and add it to the cart. Image 26: 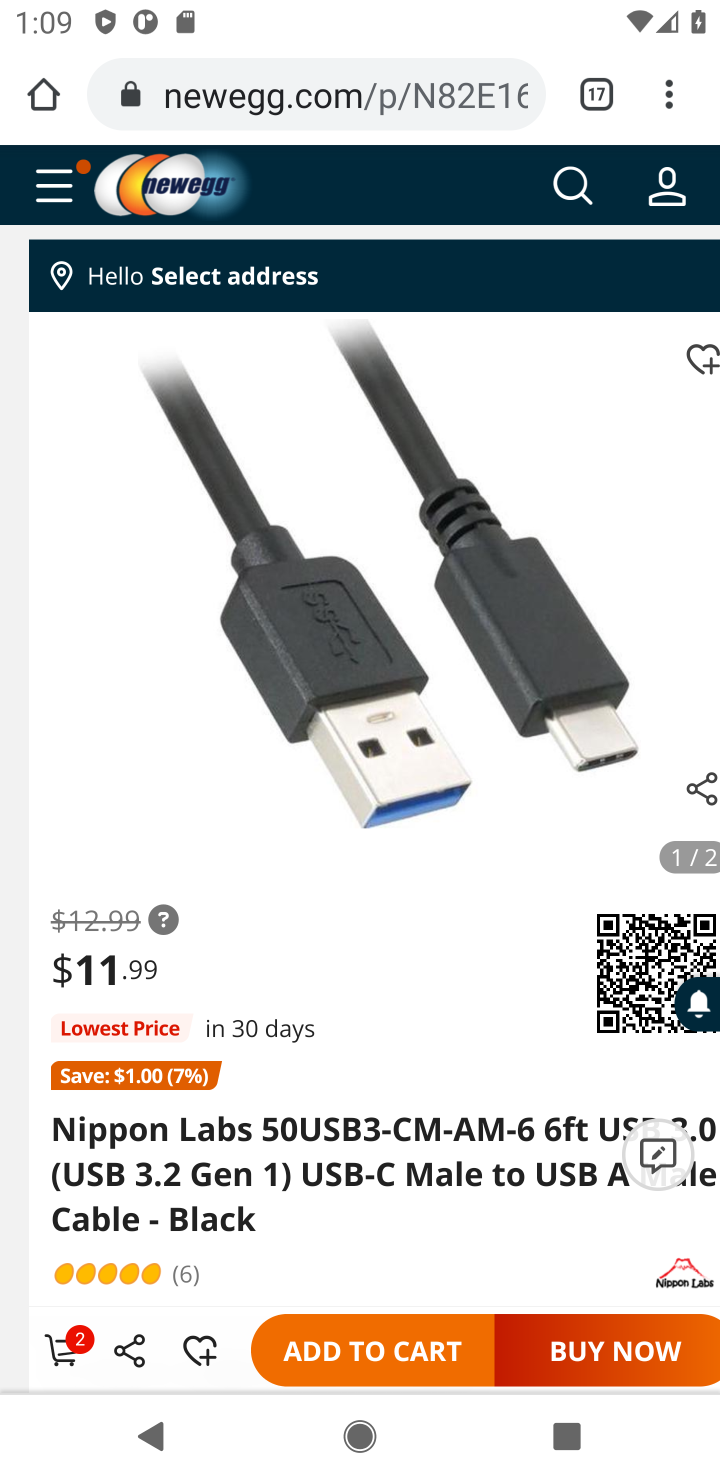
Step 26: click (331, 1350)
Your task to perform on an android device: Clear all items from cart on newegg. Search for usb-c to usb-a on newegg, select the first entry, and add it to the cart. Image 27: 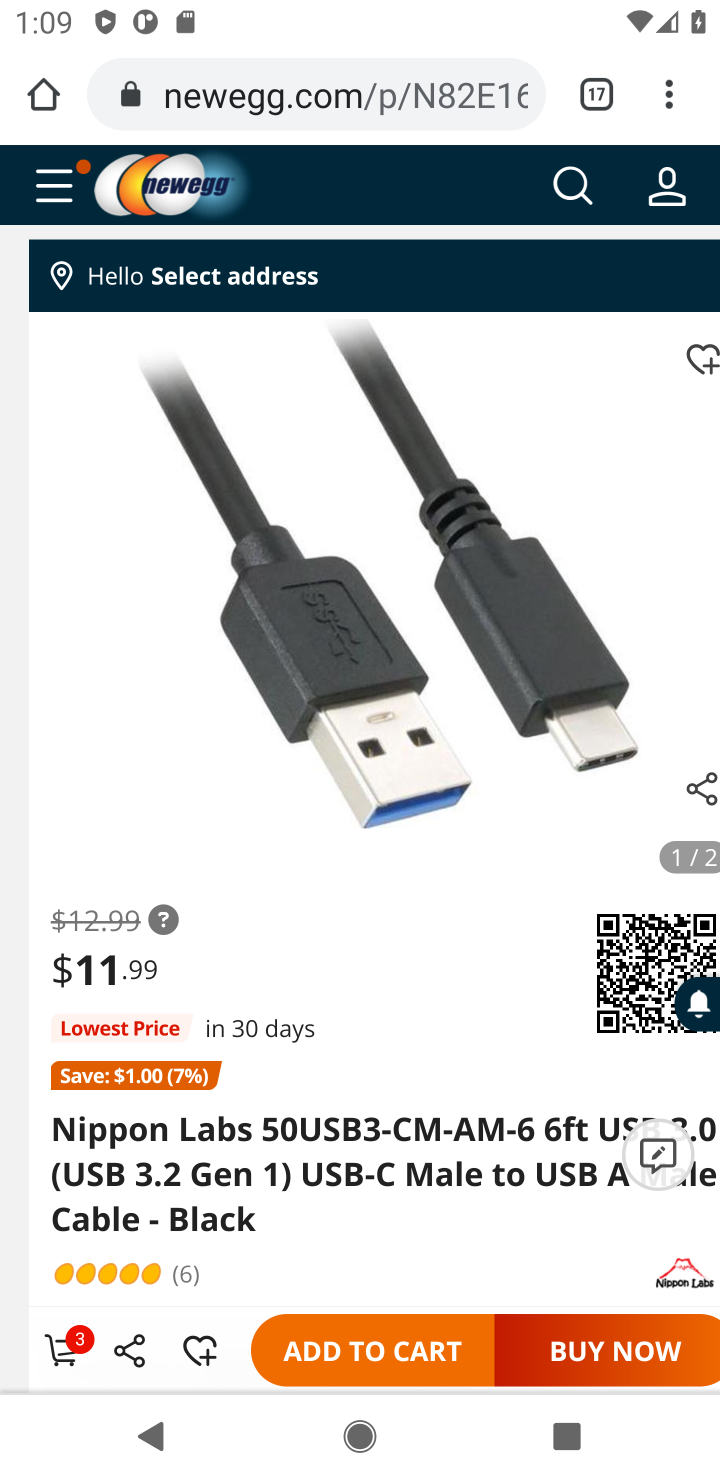
Step 27: click (302, 1347)
Your task to perform on an android device: Clear all items from cart on newegg. Search for usb-c to usb-a on newegg, select the first entry, and add it to the cart. Image 28: 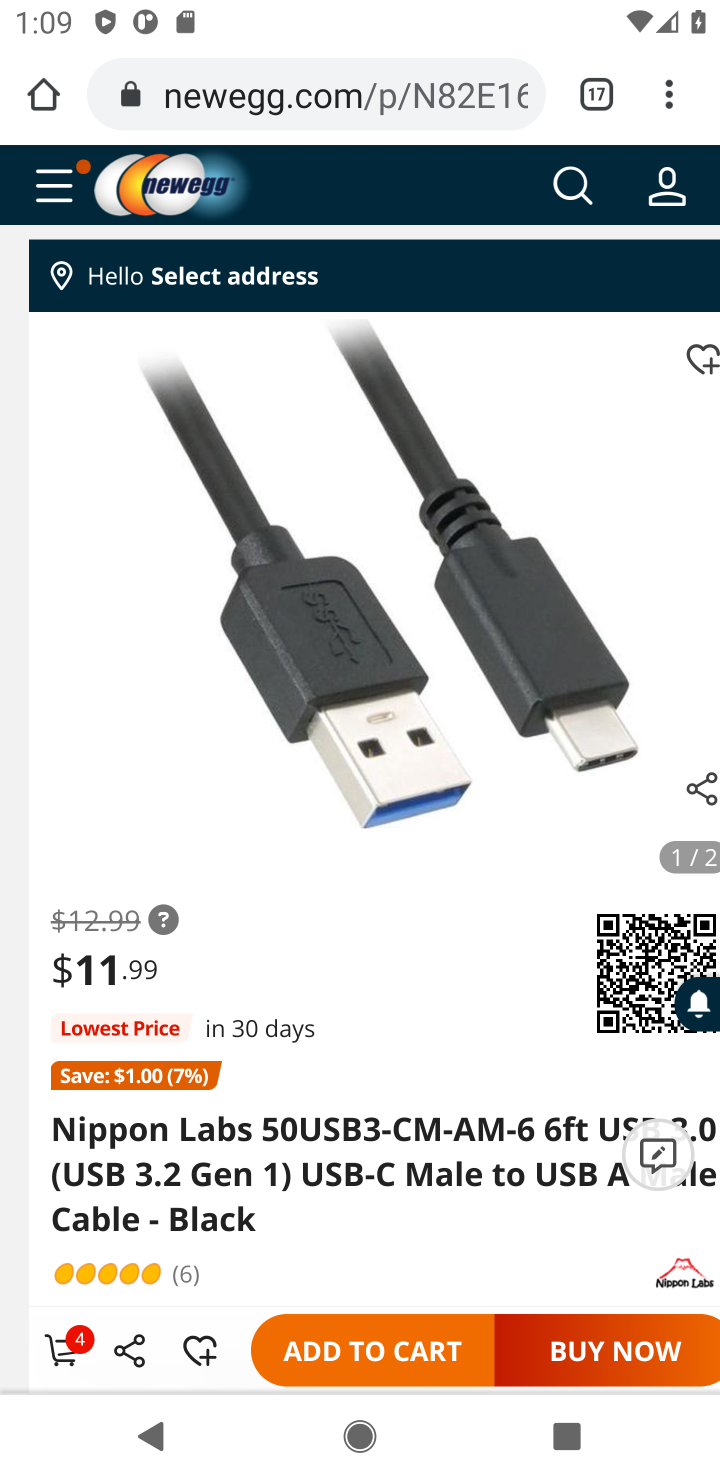
Step 28: click (73, 1362)
Your task to perform on an android device: Clear all items from cart on newegg. Search for usb-c to usb-a on newegg, select the first entry, and add it to the cart. Image 29: 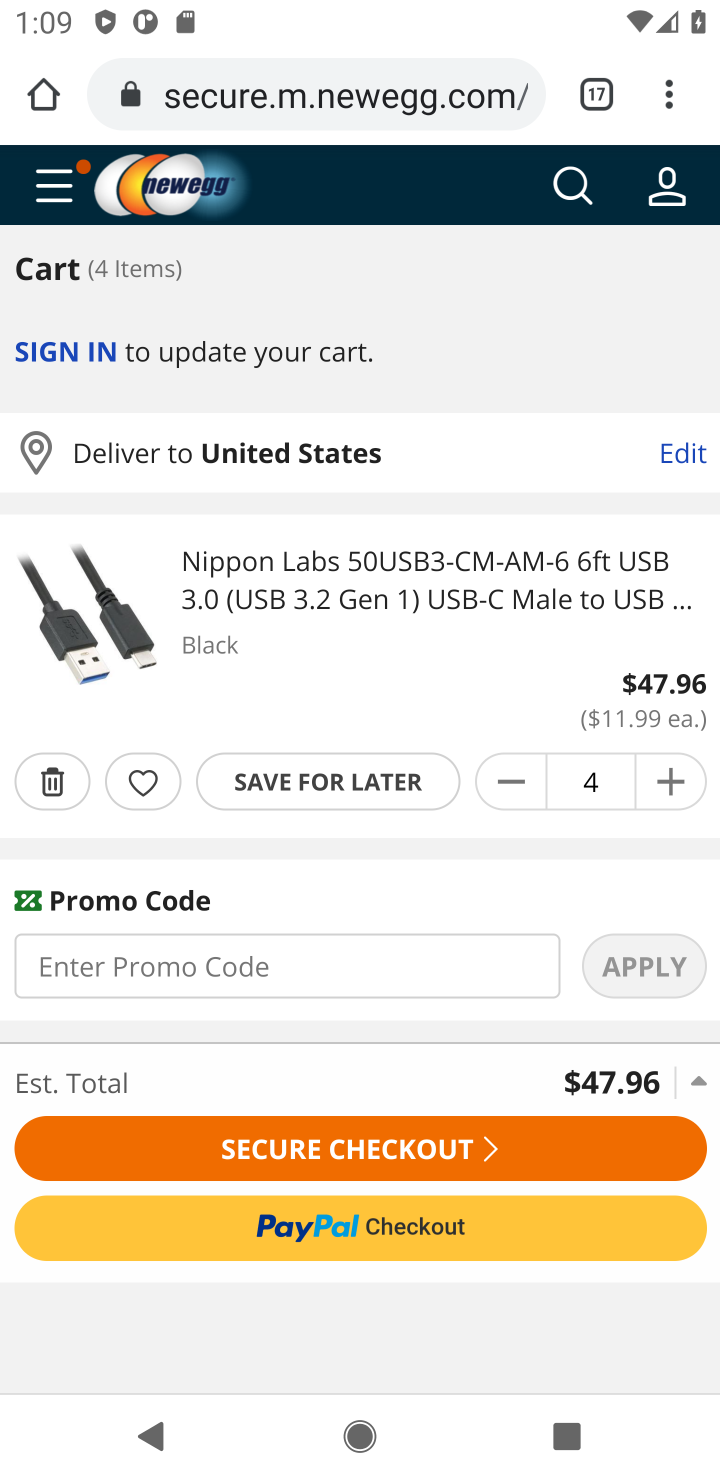
Step 29: click (317, 1134)
Your task to perform on an android device: Clear all items from cart on newegg. Search for usb-c to usb-a on newegg, select the first entry, and add it to the cart. Image 30: 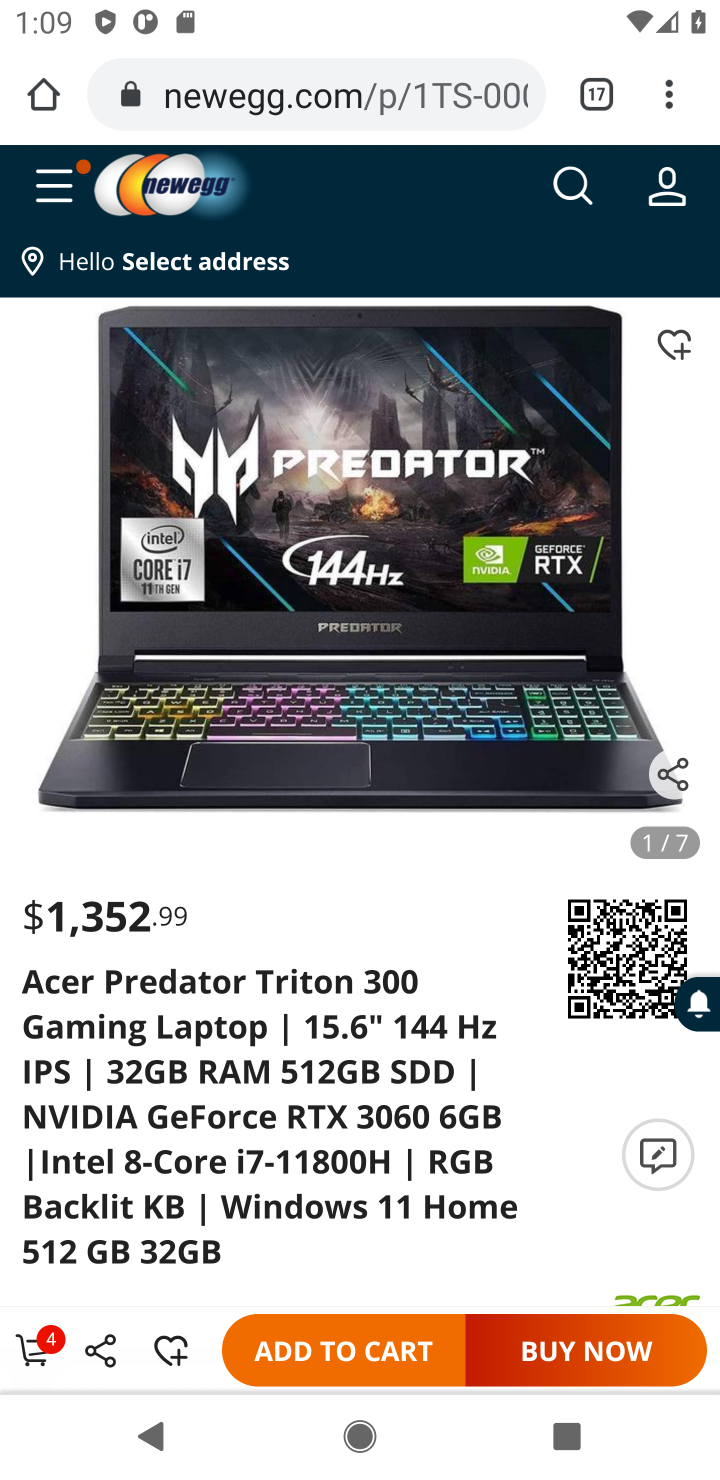
Step 30: task complete